Your task to perform on an android device: change the clock display to show seconds Image 0: 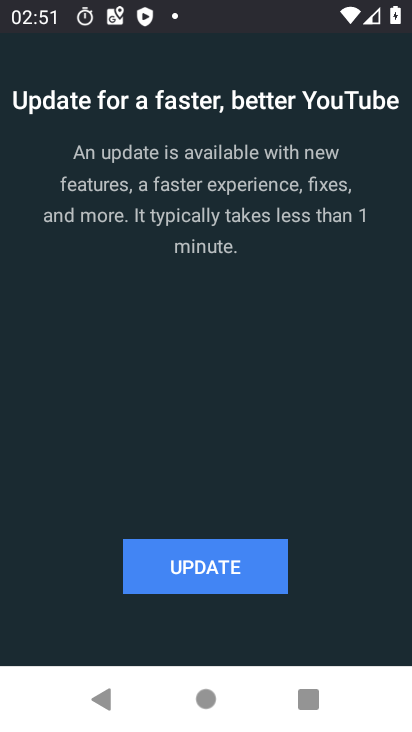
Step 0: press home button
Your task to perform on an android device: change the clock display to show seconds Image 1: 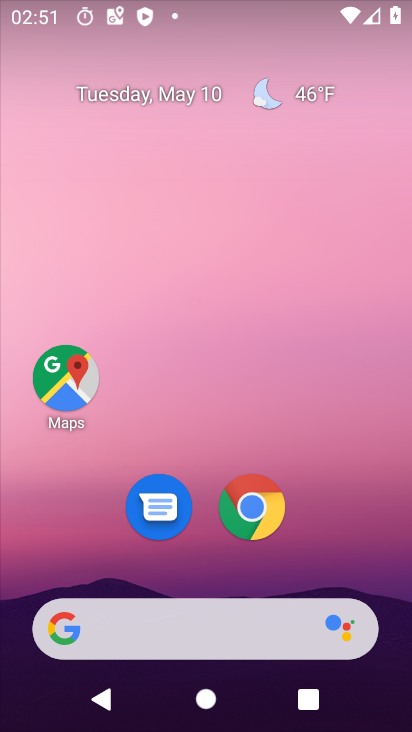
Step 1: drag from (251, 668) to (225, 140)
Your task to perform on an android device: change the clock display to show seconds Image 2: 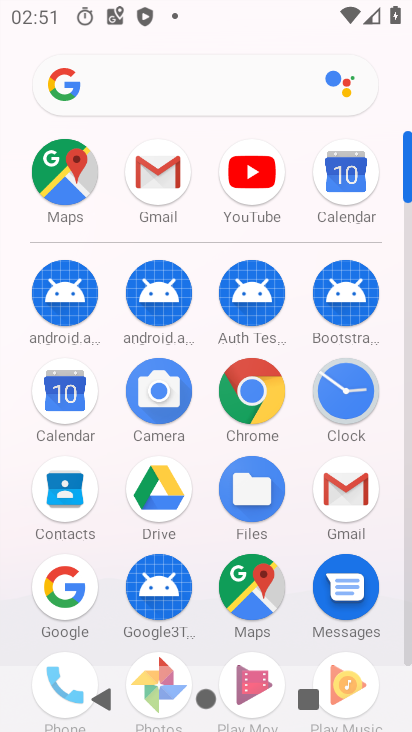
Step 2: click (350, 378)
Your task to perform on an android device: change the clock display to show seconds Image 3: 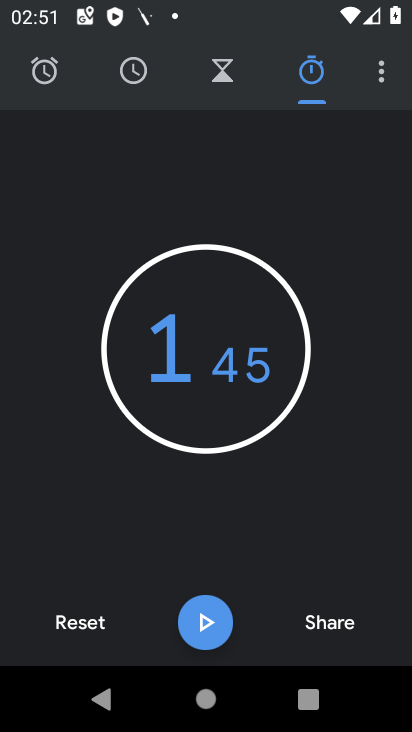
Step 3: click (364, 88)
Your task to perform on an android device: change the clock display to show seconds Image 4: 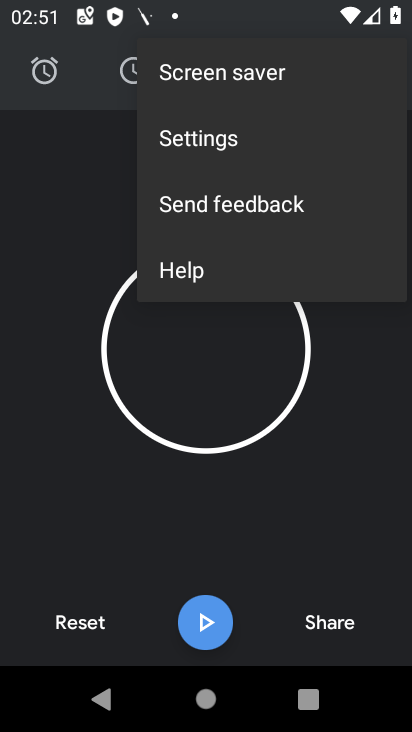
Step 4: click (233, 137)
Your task to perform on an android device: change the clock display to show seconds Image 5: 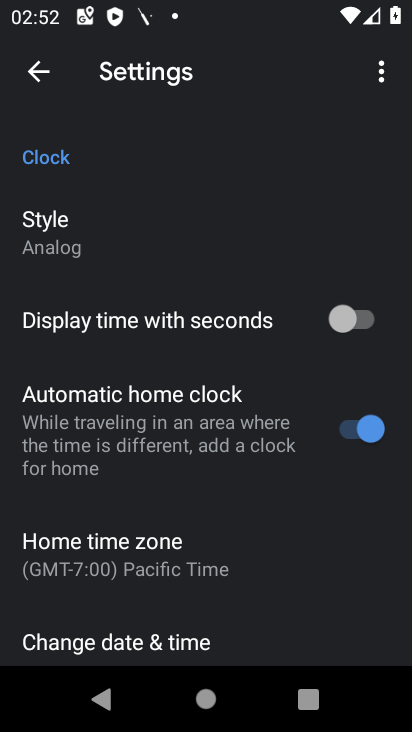
Step 5: click (216, 328)
Your task to perform on an android device: change the clock display to show seconds Image 6: 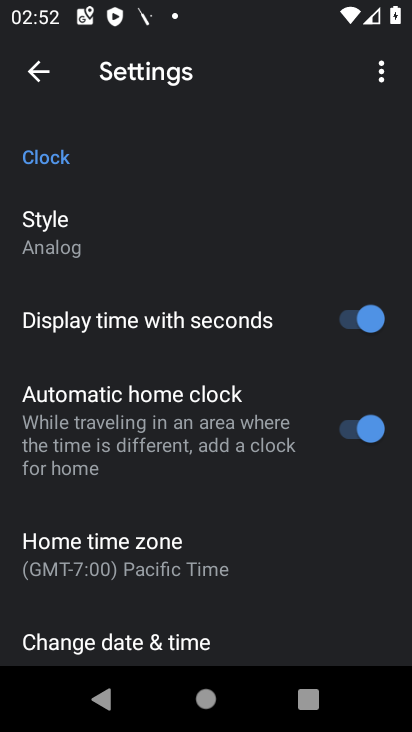
Step 6: task complete